Your task to perform on an android device: See recent photos Image 0: 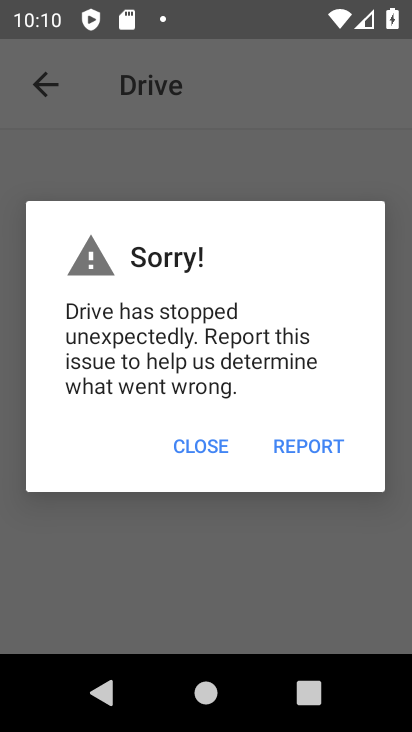
Step 0: drag from (237, 533) to (258, 426)
Your task to perform on an android device: See recent photos Image 1: 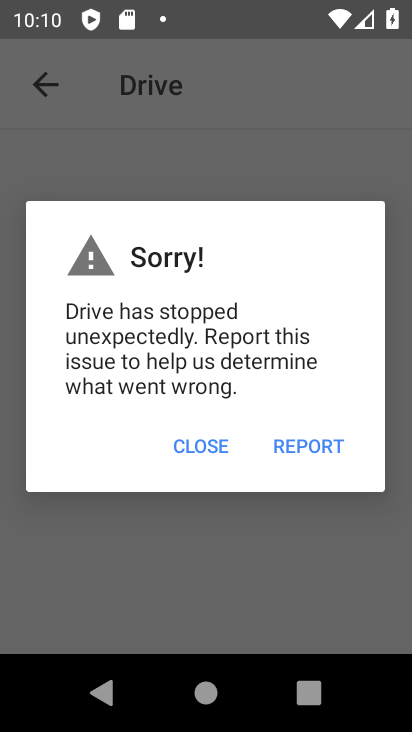
Step 1: click (231, 568)
Your task to perform on an android device: See recent photos Image 2: 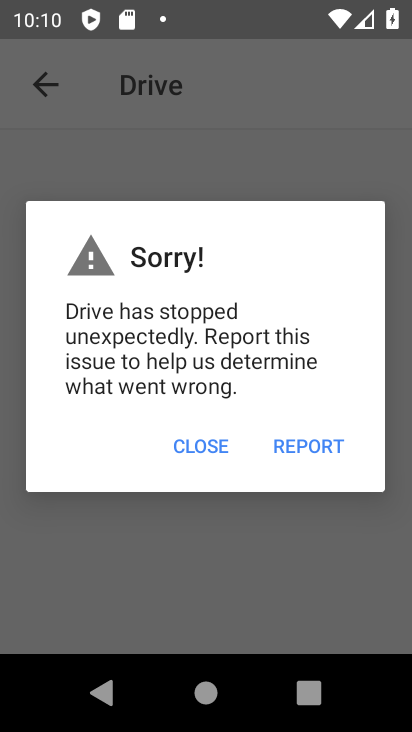
Step 2: press home button
Your task to perform on an android device: See recent photos Image 3: 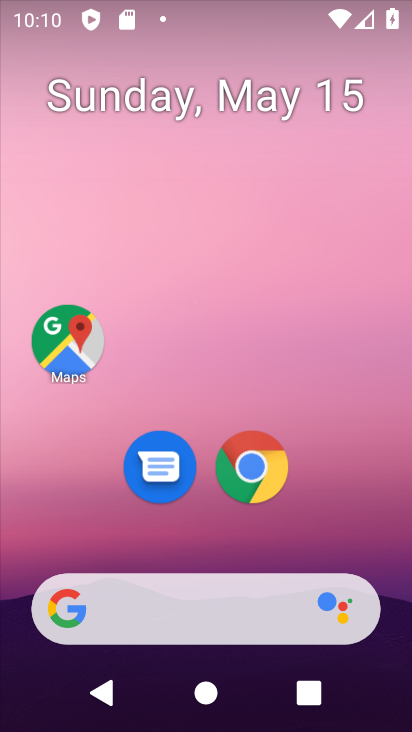
Step 3: drag from (194, 562) to (216, 376)
Your task to perform on an android device: See recent photos Image 4: 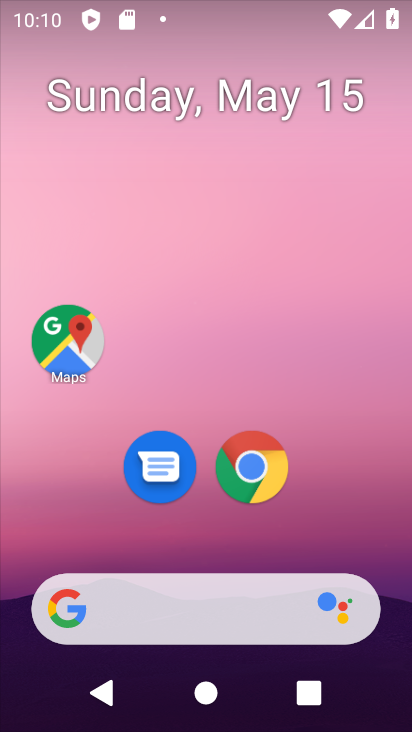
Step 4: drag from (186, 512) to (210, 271)
Your task to perform on an android device: See recent photos Image 5: 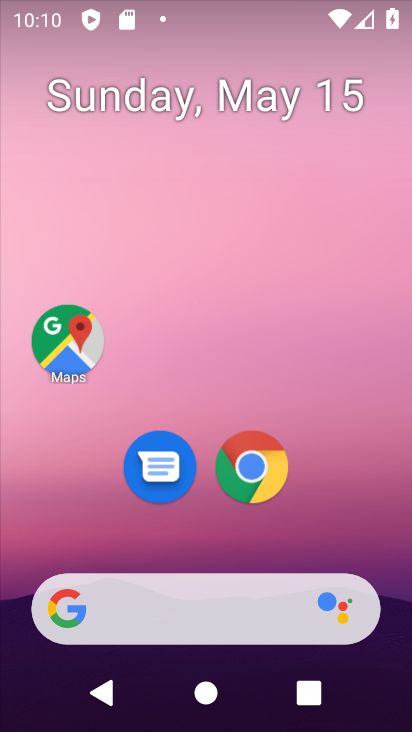
Step 5: drag from (196, 540) to (228, 299)
Your task to perform on an android device: See recent photos Image 6: 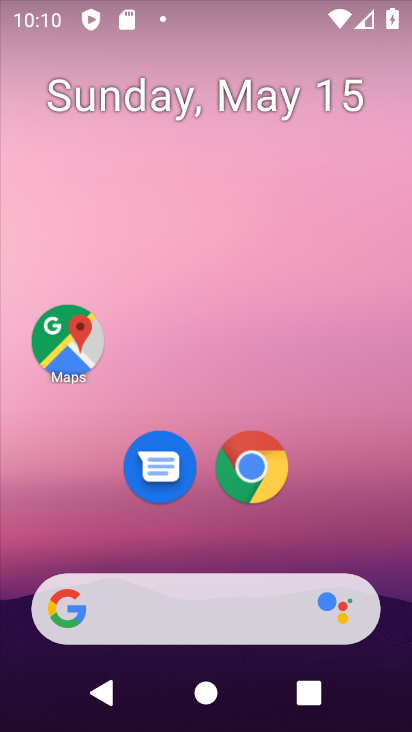
Step 6: drag from (205, 581) to (155, 65)
Your task to perform on an android device: See recent photos Image 7: 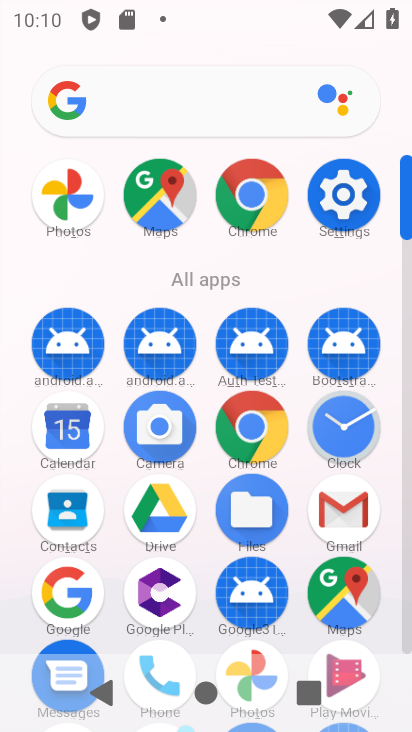
Step 7: click (250, 644)
Your task to perform on an android device: See recent photos Image 8: 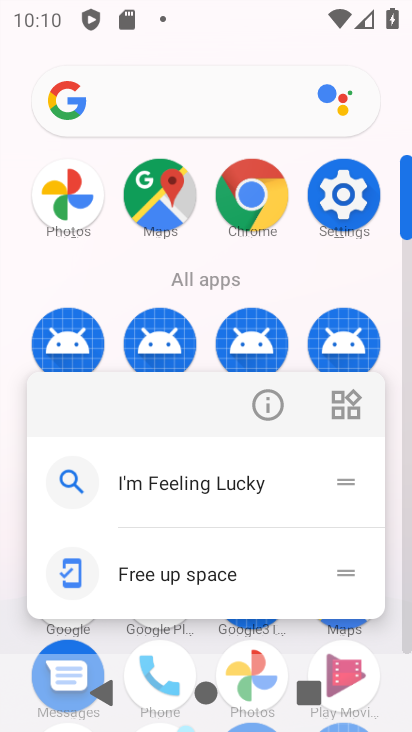
Step 8: click (262, 390)
Your task to perform on an android device: See recent photos Image 9: 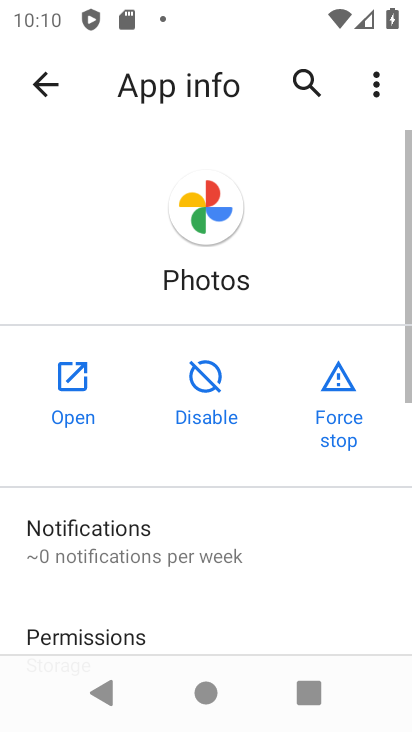
Step 9: click (78, 382)
Your task to perform on an android device: See recent photos Image 10: 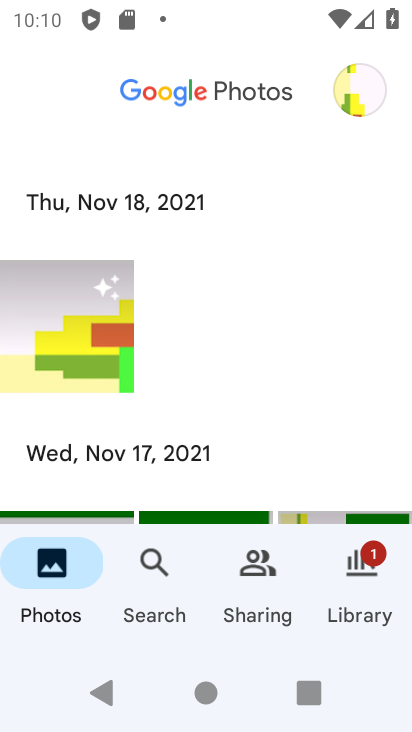
Step 10: click (92, 335)
Your task to perform on an android device: See recent photos Image 11: 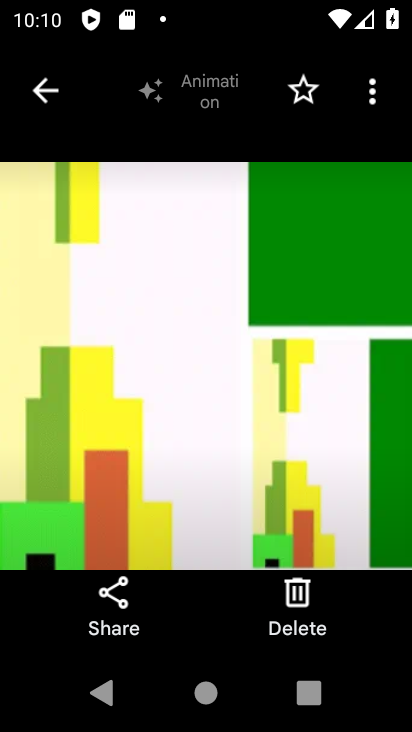
Step 11: task complete